Your task to perform on an android device: Open Reddit.com Image 0: 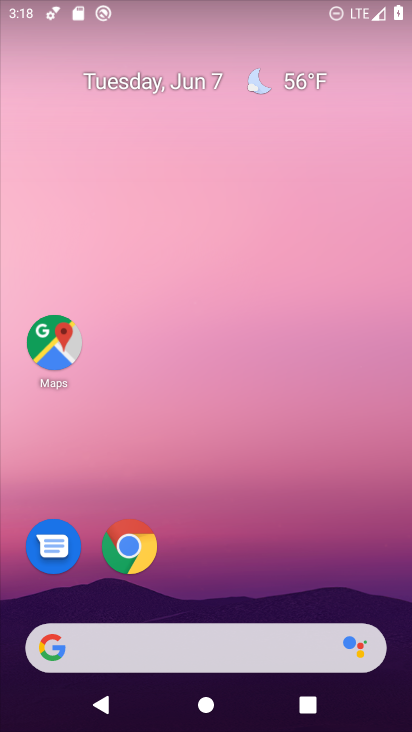
Step 0: drag from (243, 523) to (224, 41)
Your task to perform on an android device: Open Reddit.com Image 1: 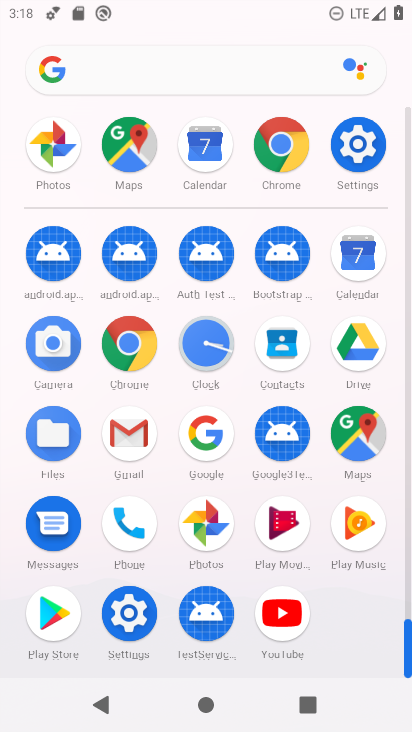
Step 1: click (130, 342)
Your task to perform on an android device: Open Reddit.com Image 2: 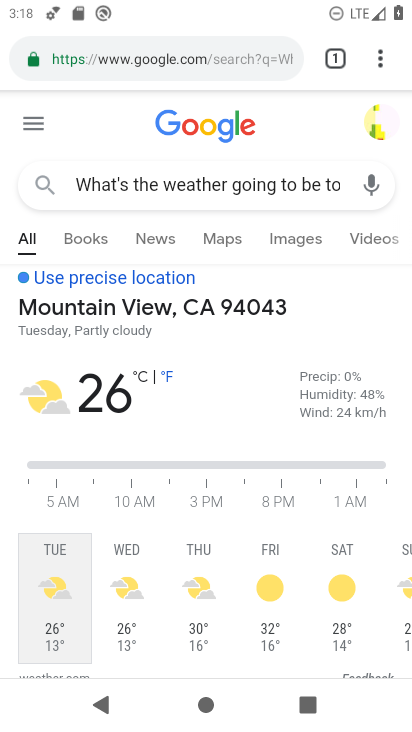
Step 2: click (177, 61)
Your task to perform on an android device: Open Reddit.com Image 3: 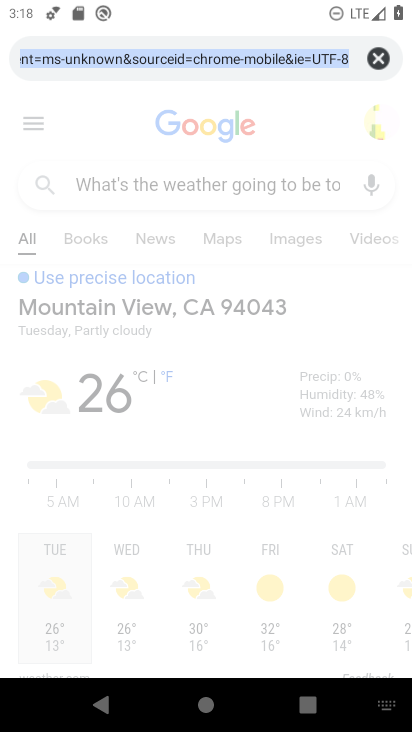
Step 3: click (375, 51)
Your task to perform on an android device: Open Reddit.com Image 4: 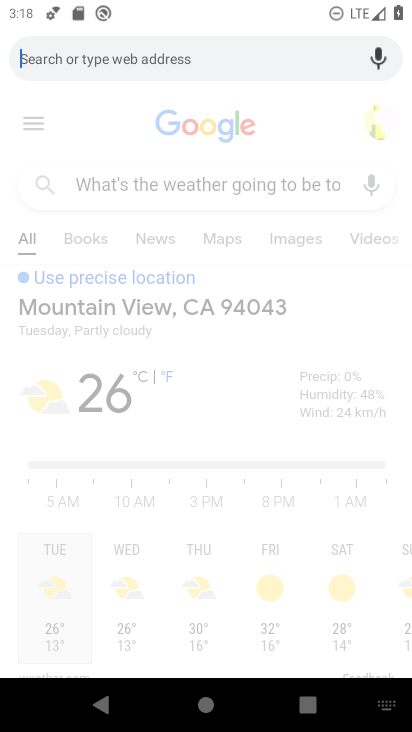
Step 4: type " Reddit.com"
Your task to perform on an android device: Open Reddit.com Image 5: 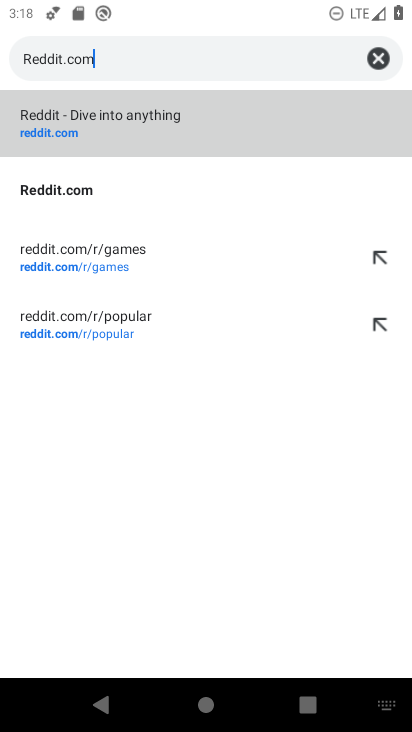
Step 5: type ""
Your task to perform on an android device: Open Reddit.com Image 6: 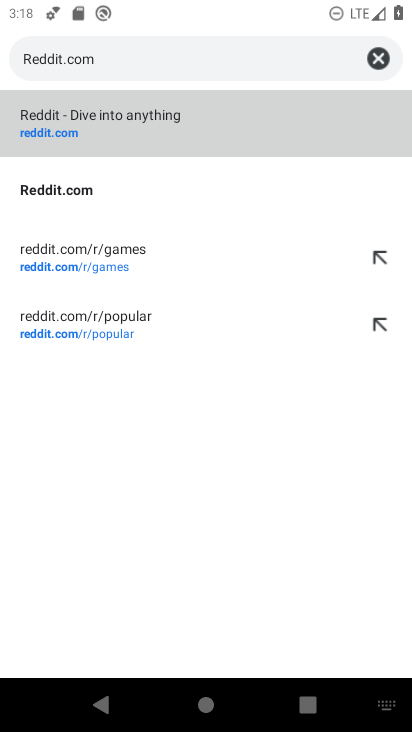
Step 6: click (121, 128)
Your task to perform on an android device: Open Reddit.com Image 7: 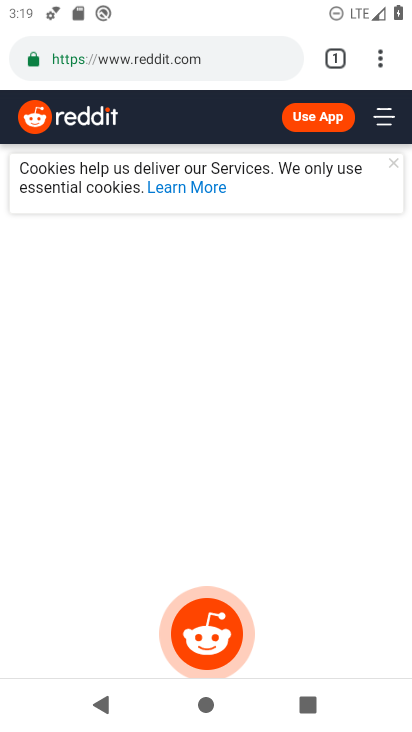
Step 7: task complete